Your task to perform on an android device: Open Chrome and go to settings Image 0: 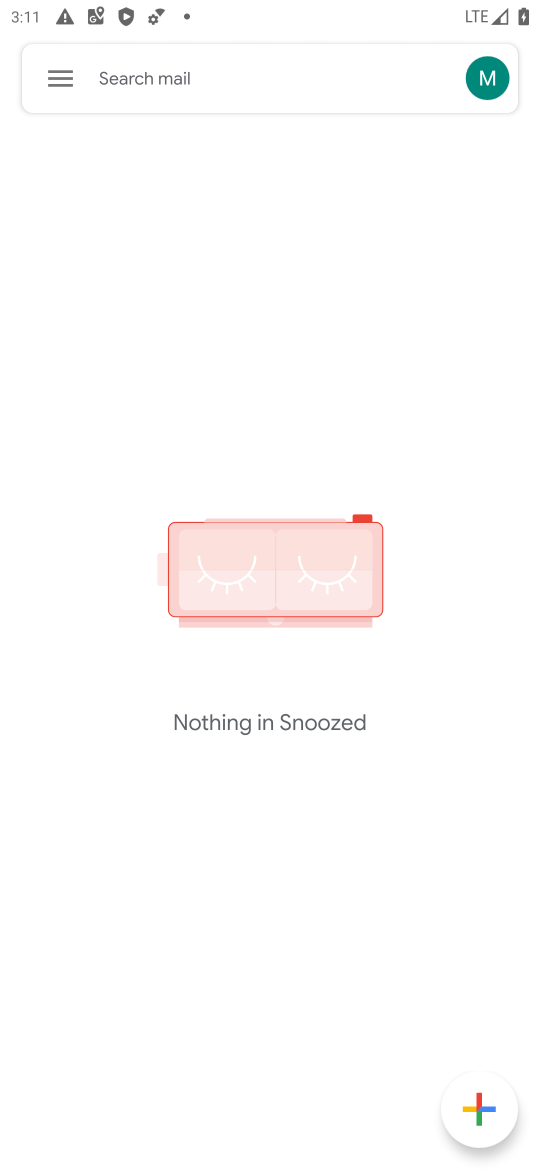
Step 0: press home button
Your task to perform on an android device: Open Chrome and go to settings Image 1: 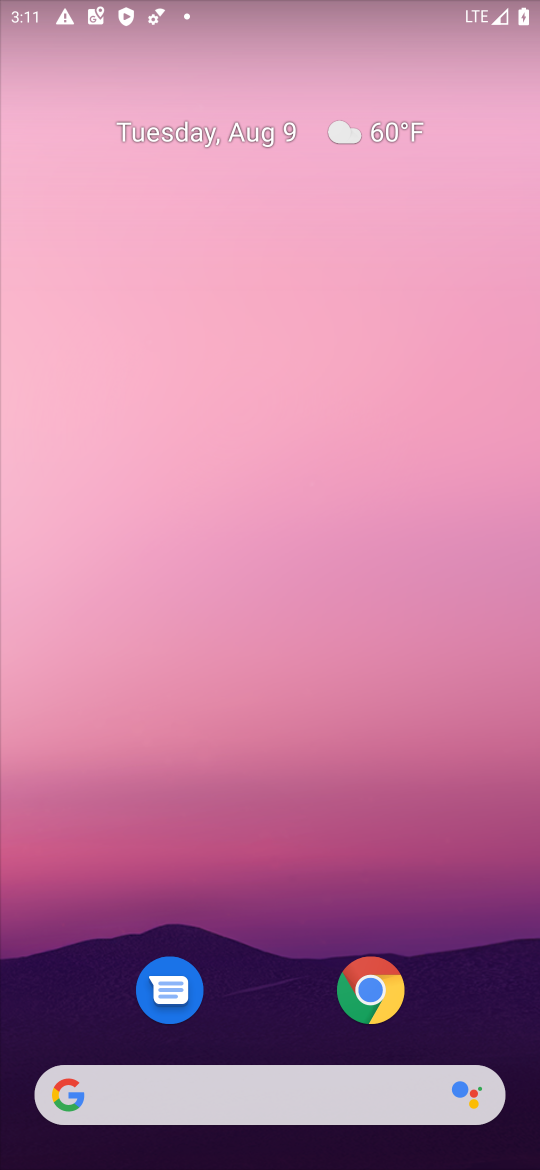
Step 1: drag from (278, 1098) to (256, 42)
Your task to perform on an android device: Open Chrome and go to settings Image 2: 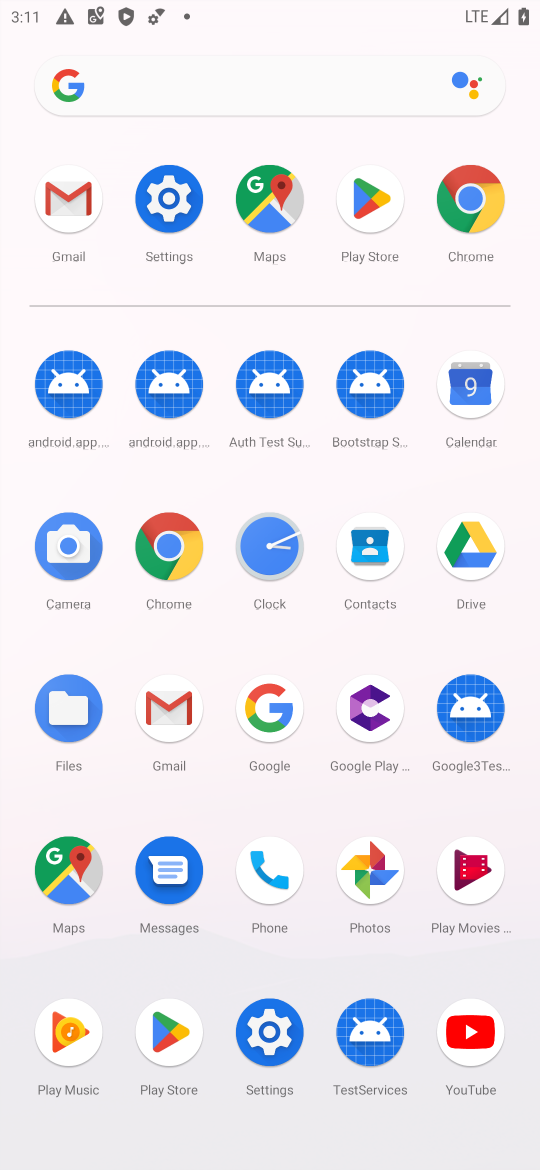
Step 2: click (163, 542)
Your task to perform on an android device: Open Chrome and go to settings Image 3: 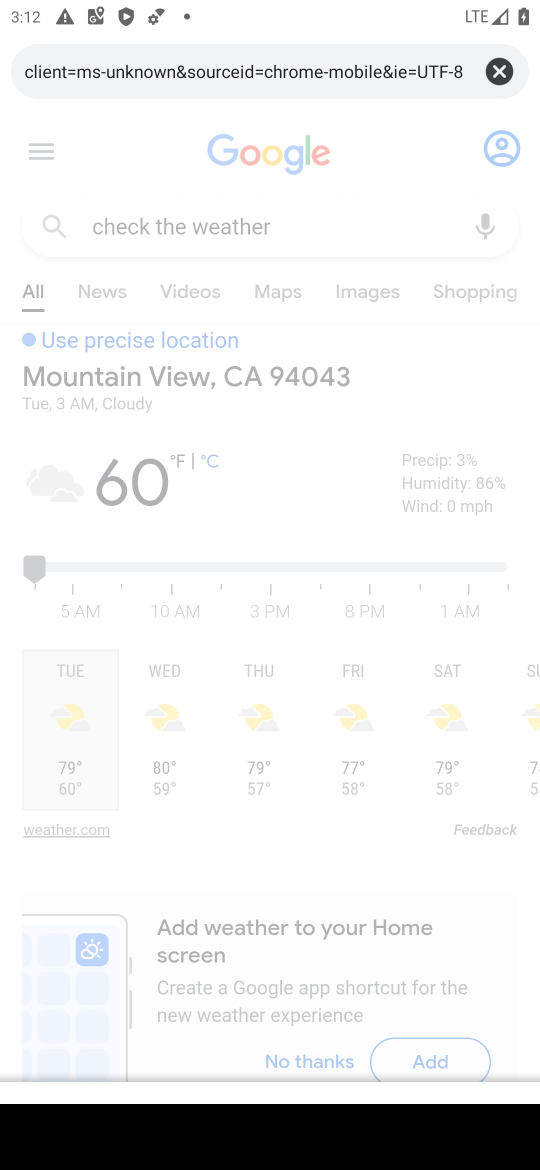
Step 3: press back button
Your task to perform on an android device: Open Chrome and go to settings Image 4: 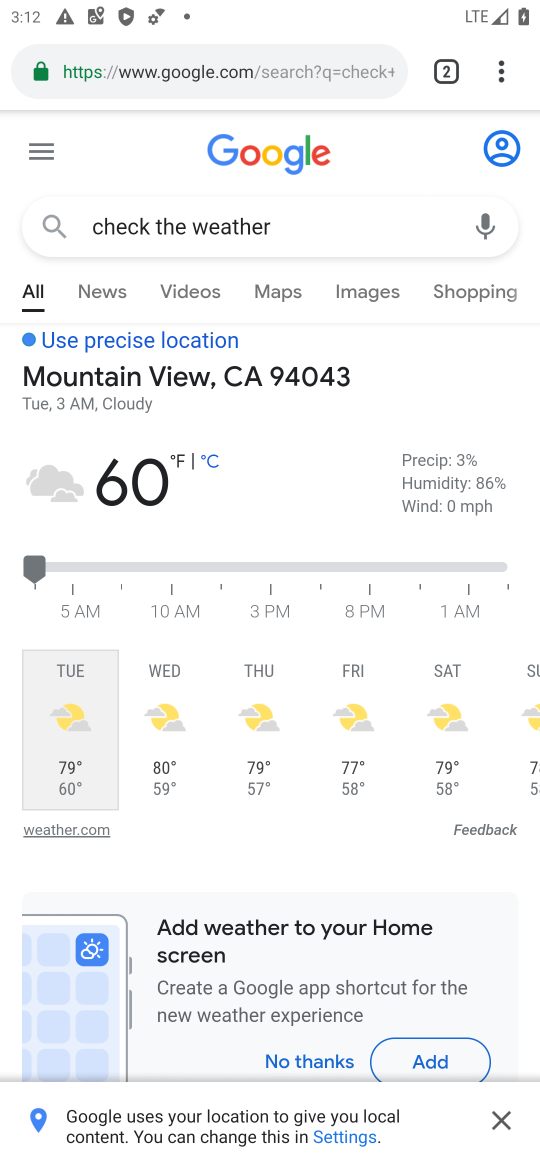
Step 4: click (494, 72)
Your task to perform on an android device: Open Chrome and go to settings Image 5: 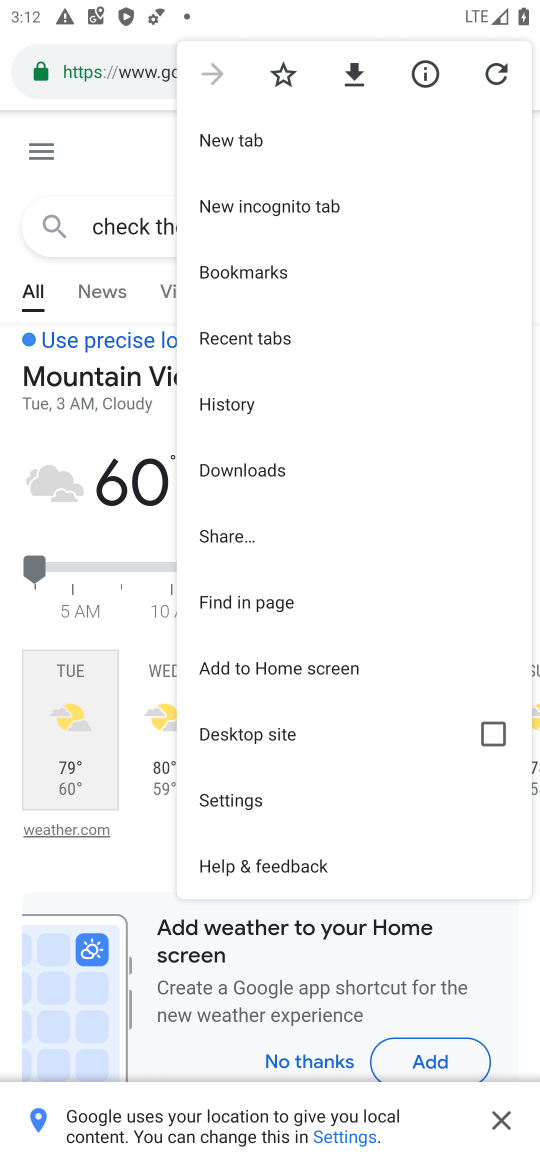
Step 5: click (228, 806)
Your task to perform on an android device: Open Chrome and go to settings Image 6: 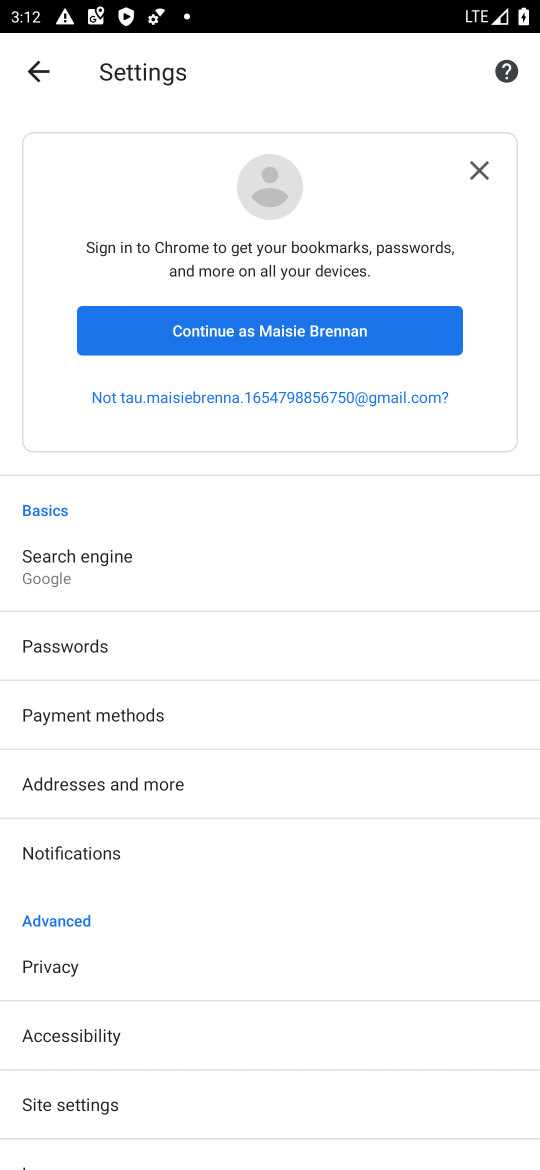
Step 6: task complete